Your task to perform on an android device: set default search engine in the chrome app Image 0: 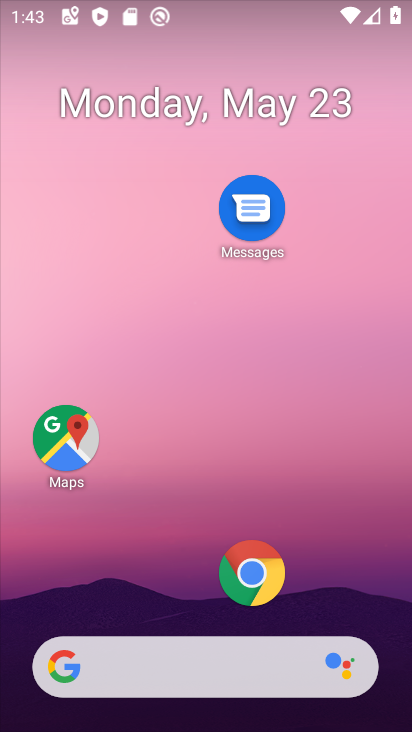
Step 0: drag from (181, 594) to (195, 335)
Your task to perform on an android device: set default search engine in the chrome app Image 1: 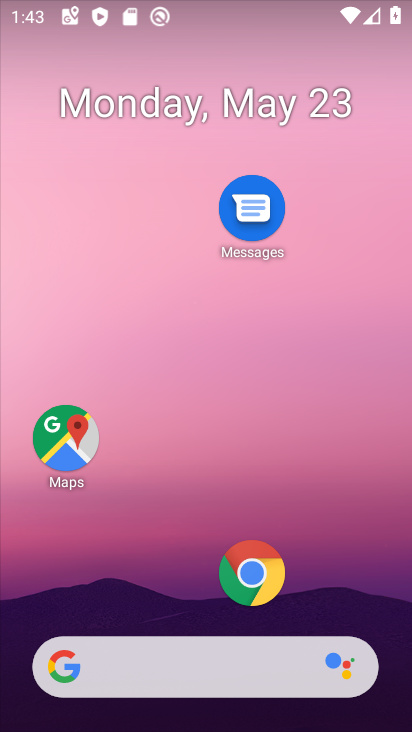
Step 1: drag from (154, 594) to (172, 115)
Your task to perform on an android device: set default search engine in the chrome app Image 2: 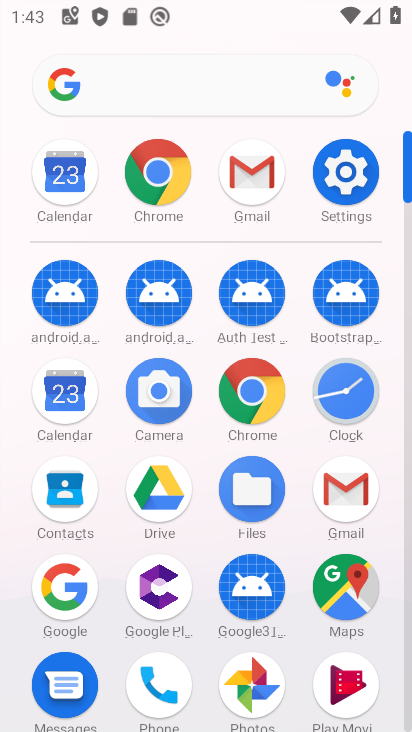
Step 2: click (148, 179)
Your task to perform on an android device: set default search engine in the chrome app Image 3: 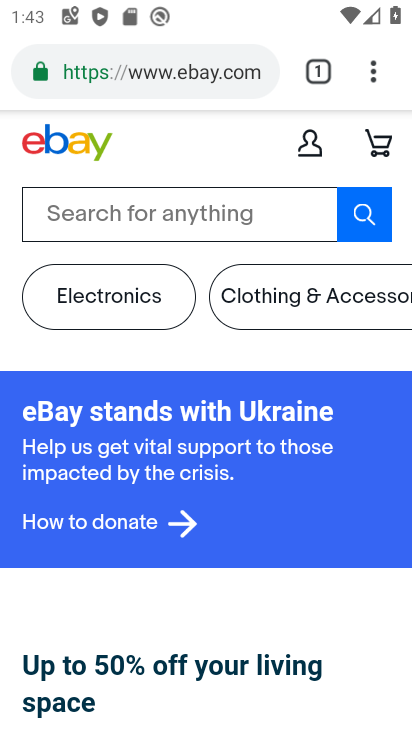
Step 3: click (261, 64)
Your task to perform on an android device: set default search engine in the chrome app Image 4: 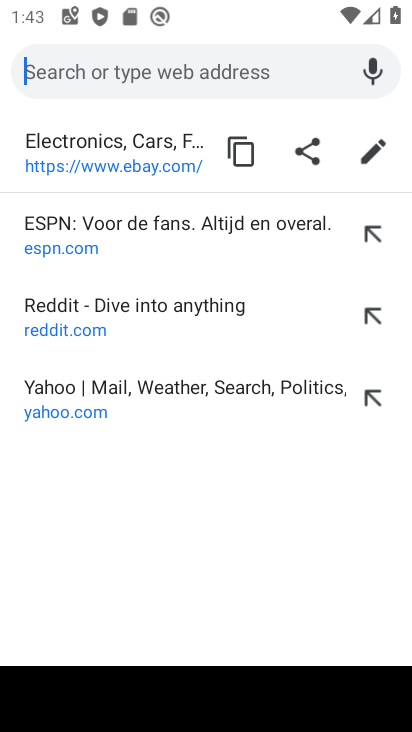
Step 4: click (401, 95)
Your task to perform on an android device: set default search engine in the chrome app Image 5: 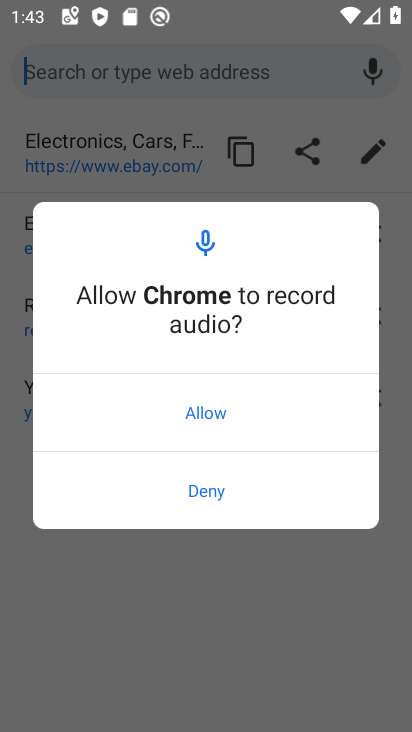
Step 5: click (198, 637)
Your task to perform on an android device: set default search engine in the chrome app Image 6: 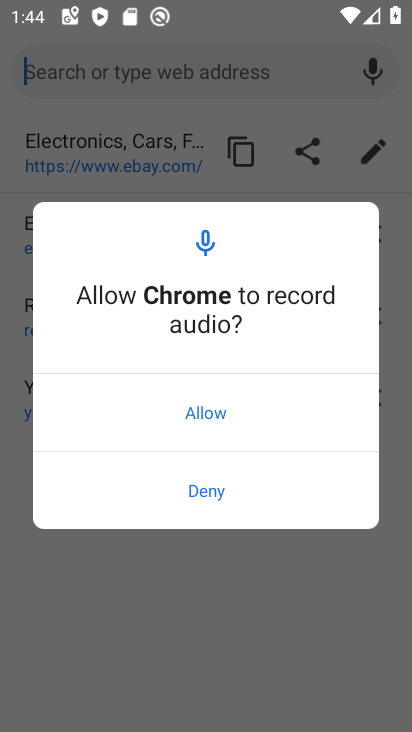
Step 6: press home button
Your task to perform on an android device: set default search engine in the chrome app Image 7: 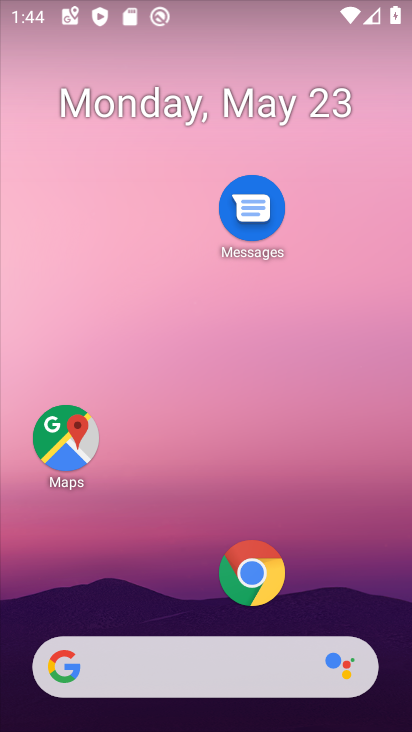
Step 7: drag from (107, 545) to (132, 221)
Your task to perform on an android device: set default search engine in the chrome app Image 8: 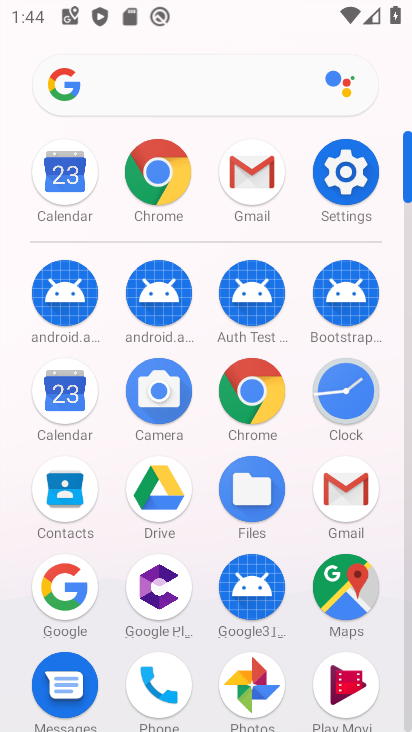
Step 8: click (171, 161)
Your task to perform on an android device: set default search engine in the chrome app Image 9: 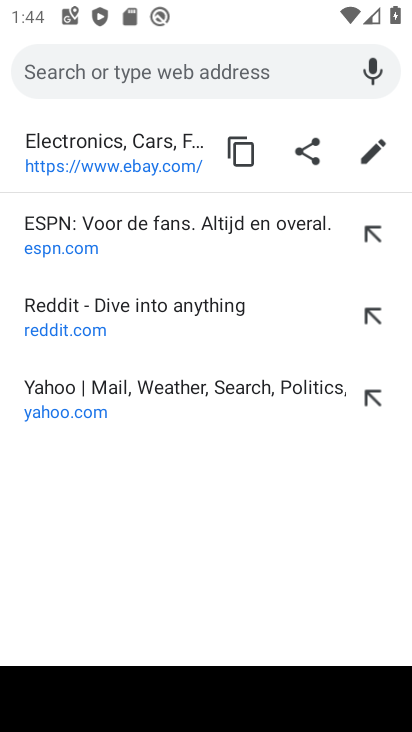
Step 9: click (280, 30)
Your task to perform on an android device: set default search engine in the chrome app Image 10: 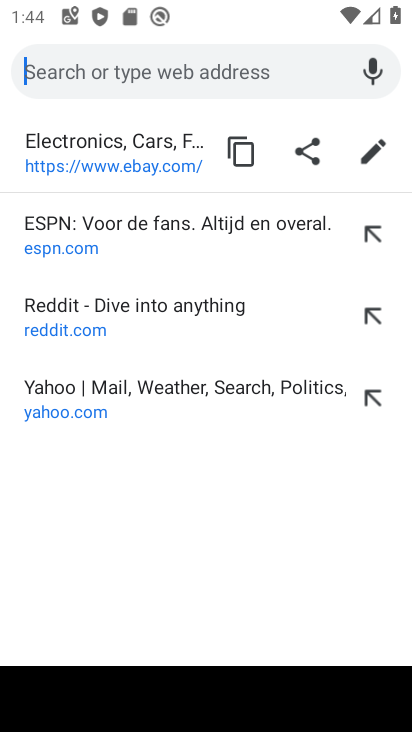
Step 10: click (280, 520)
Your task to perform on an android device: set default search engine in the chrome app Image 11: 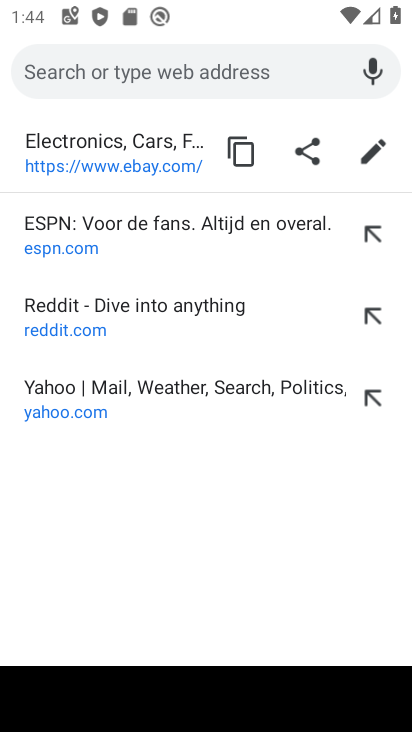
Step 11: click (280, 519)
Your task to perform on an android device: set default search engine in the chrome app Image 12: 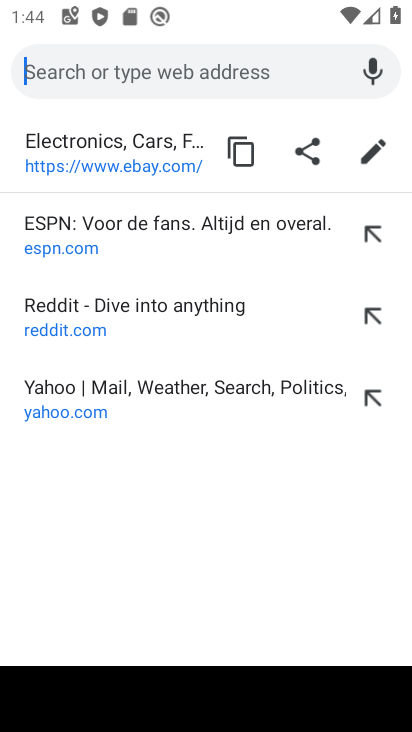
Step 12: drag from (395, 155) to (1, 201)
Your task to perform on an android device: set default search engine in the chrome app Image 13: 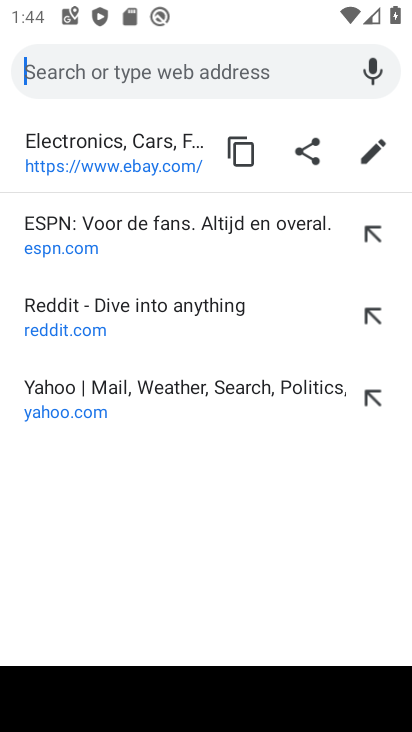
Step 13: drag from (213, 68) to (65, 65)
Your task to perform on an android device: set default search engine in the chrome app Image 14: 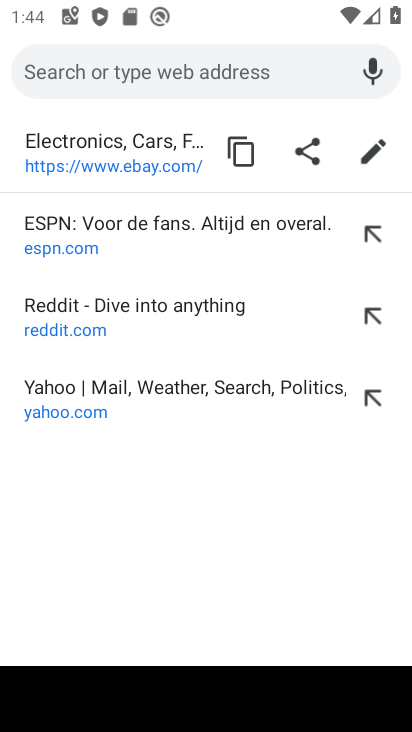
Step 14: click (6, 97)
Your task to perform on an android device: set default search engine in the chrome app Image 15: 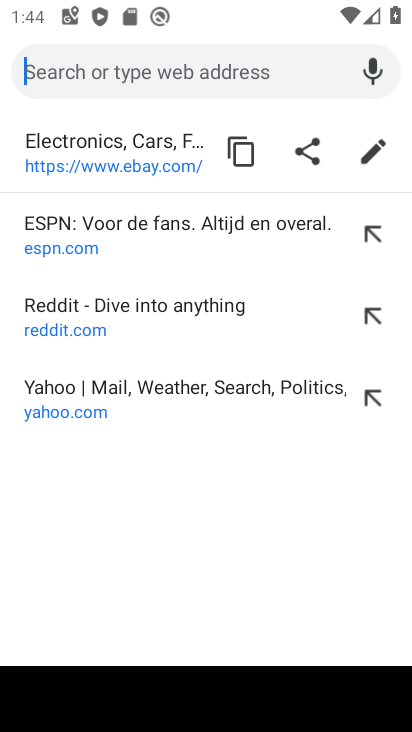
Step 15: press back button
Your task to perform on an android device: set default search engine in the chrome app Image 16: 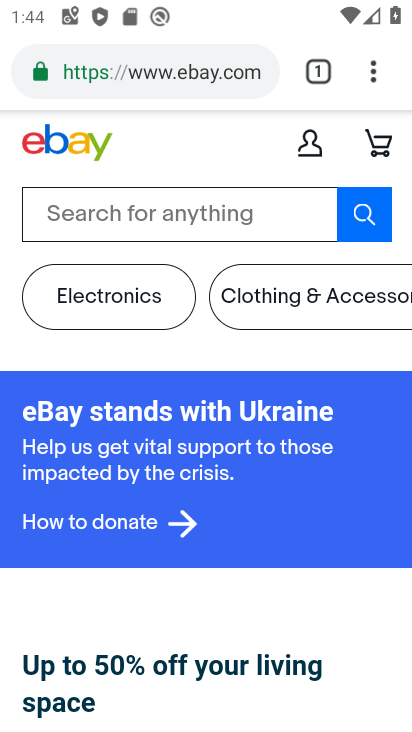
Step 16: click (380, 72)
Your task to perform on an android device: set default search engine in the chrome app Image 17: 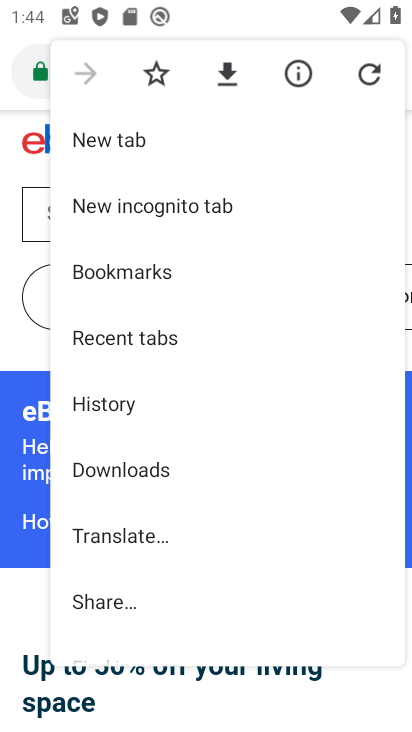
Step 17: drag from (298, 498) to (321, 169)
Your task to perform on an android device: set default search engine in the chrome app Image 18: 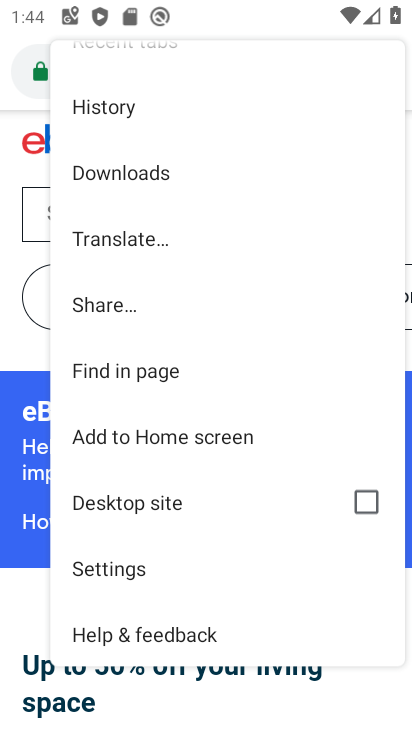
Step 18: click (134, 571)
Your task to perform on an android device: set default search engine in the chrome app Image 19: 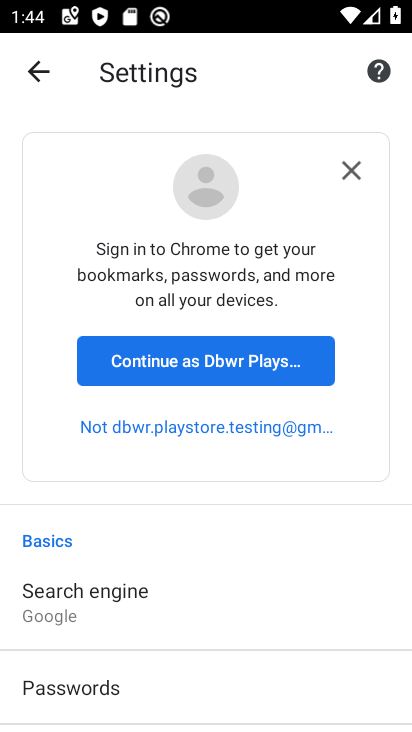
Step 19: click (101, 614)
Your task to perform on an android device: set default search engine in the chrome app Image 20: 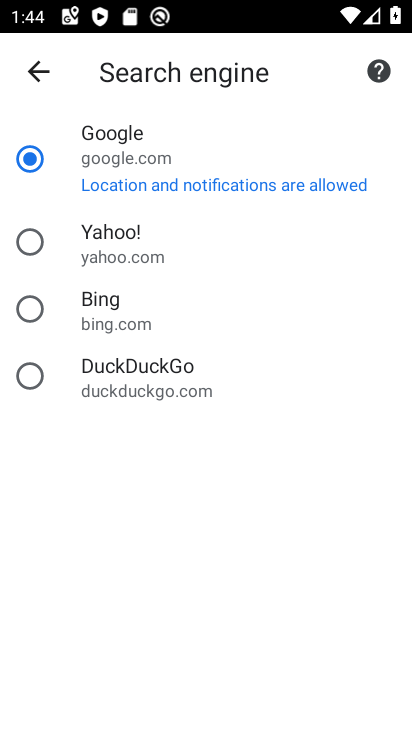
Step 20: task complete